Your task to perform on an android device: open app "WhatsApp Messenger" (install if not already installed), go to login, and select forgot password Image 0: 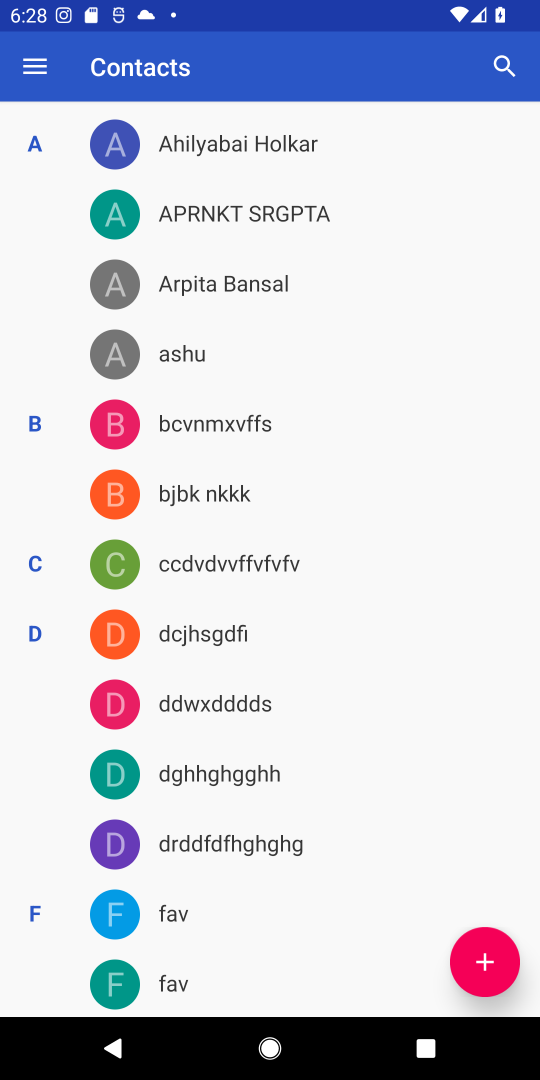
Step 0: press home button
Your task to perform on an android device: open app "WhatsApp Messenger" (install if not already installed), go to login, and select forgot password Image 1: 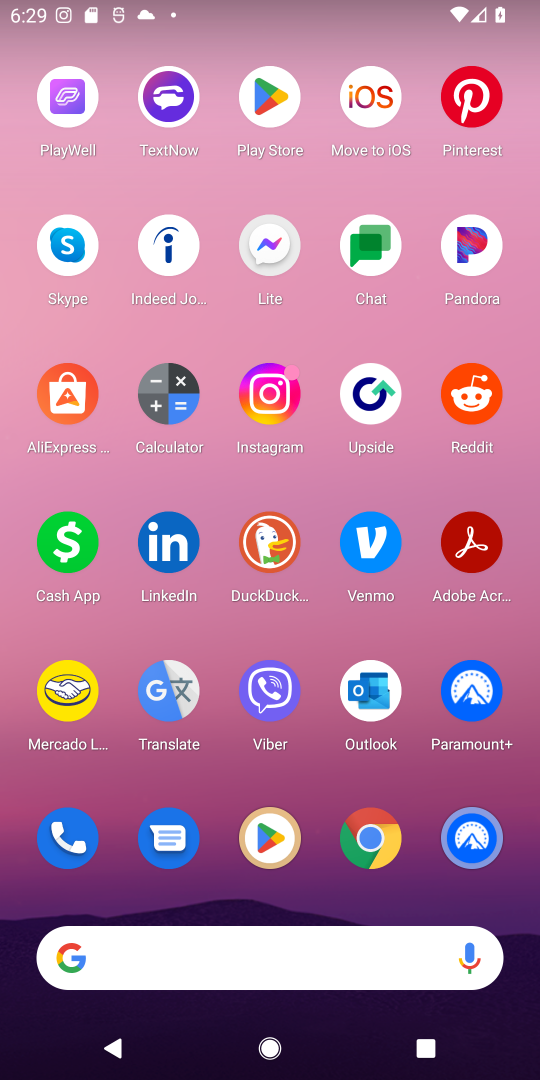
Step 1: click (273, 843)
Your task to perform on an android device: open app "WhatsApp Messenger" (install if not already installed), go to login, and select forgot password Image 2: 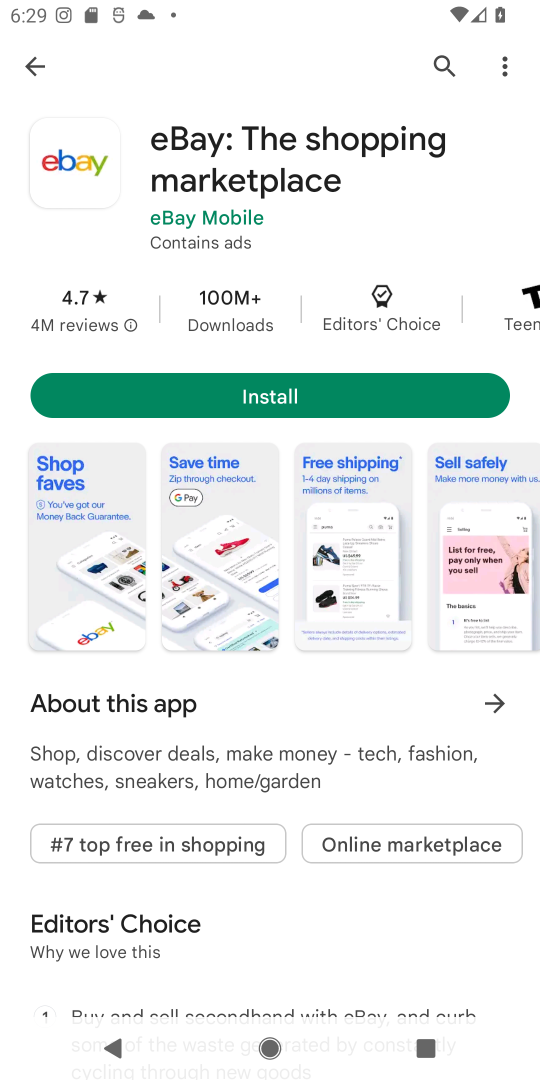
Step 2: click (439, 56)
Your task to perform on an android device: open app "WhatsApp Messenger" (install if not already installed), go to login, and select forgot password Image 3: 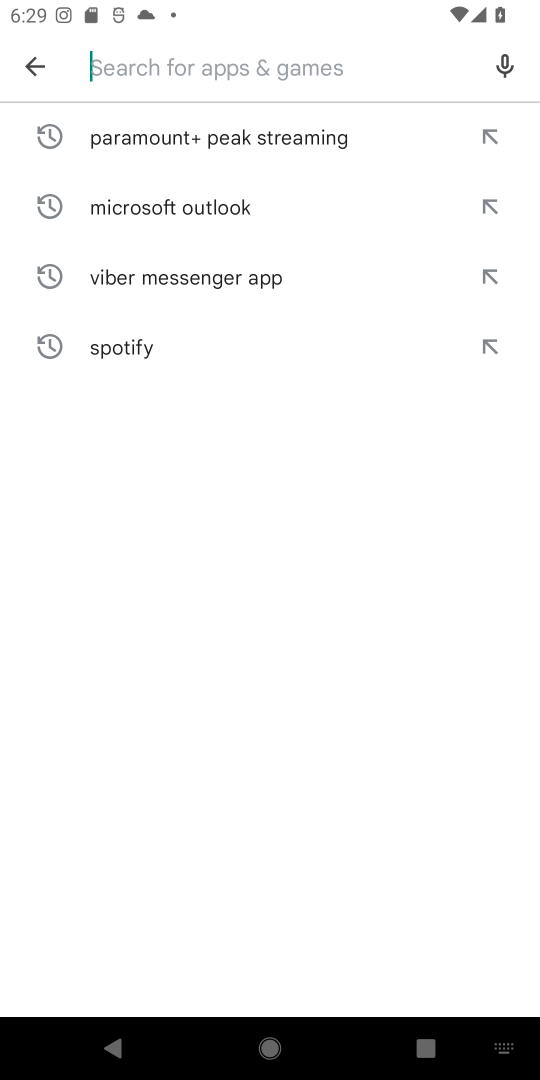
Step 3: type "WhatsApp Messenger"
Your task to perform on an android device: open app "WhatsApp Messenger" (install if not already installed), go to login, and select forgot password Image 4: 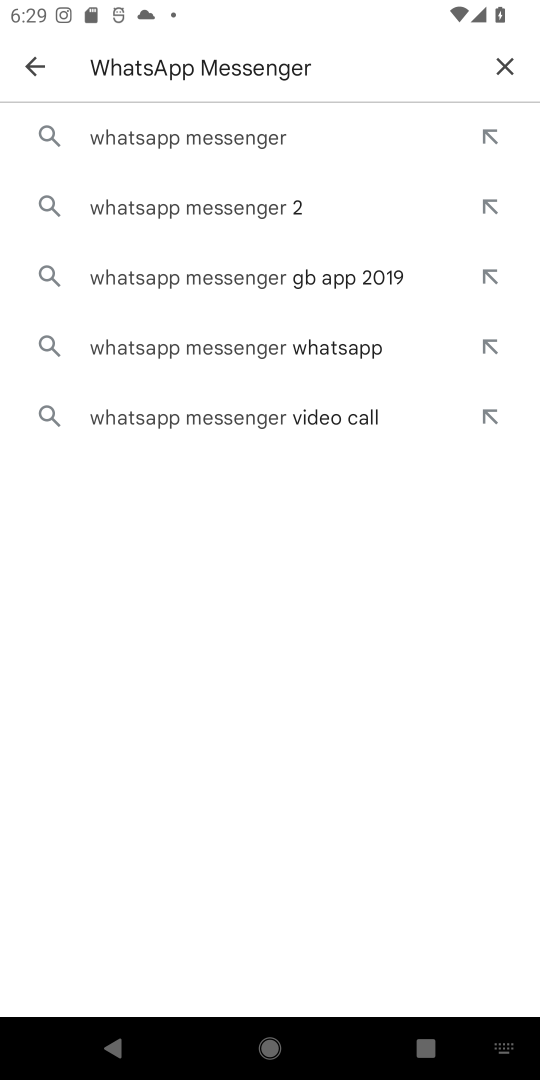
Step 4: click (215, 138)
Your task to perform on an android device: open app "WhatsApp Messenger" (install if not already installed), go to login, and select forgot password Image 5: 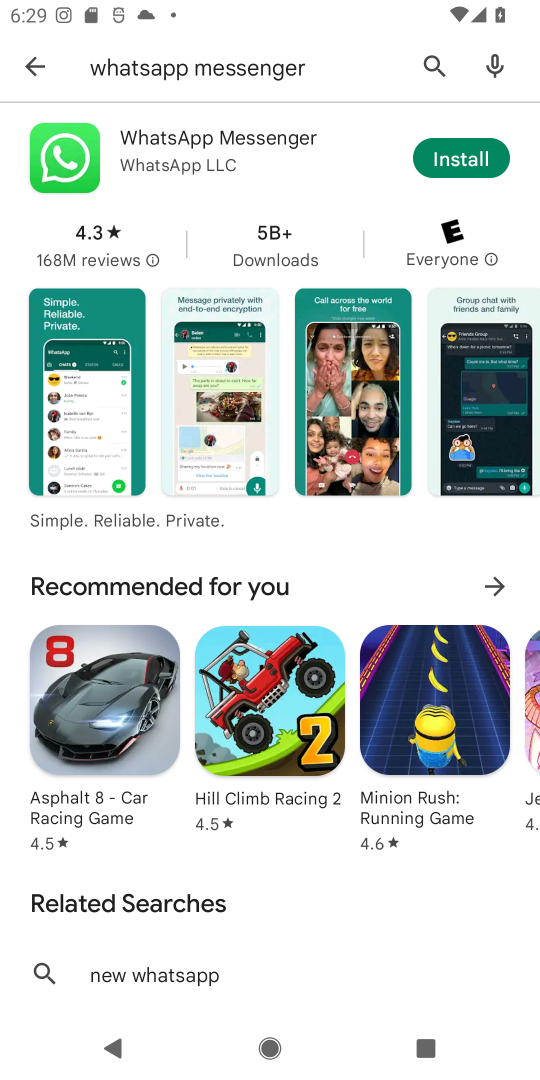
Step 5: click (447, 153)
Your task to perform on an android device: open app "WhatsApp Messenger" (install if not already installed), go to login, and select forgot password Image 6: 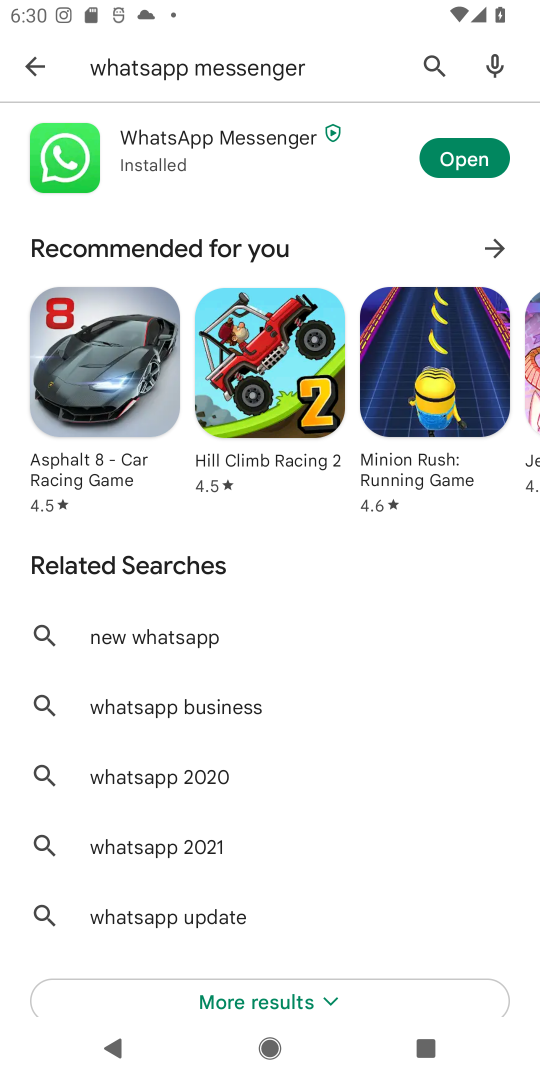
Step 6: click (446, 161)
Your task to perform on an android device: open app "WhatsApp Messenger" (install if not already installed), go to login, and select forgot password Image 7: 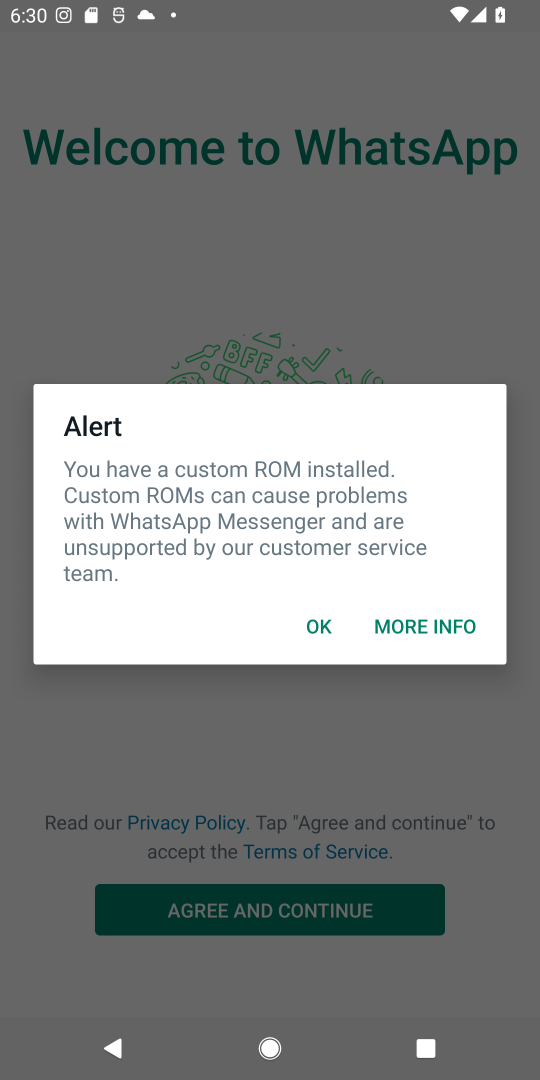
Step 7: click (316, 621)
Your task to perform on an android device: open app "WhatsApp Messenger" (install if not already installed), go to login, and select forgot password Image 8: 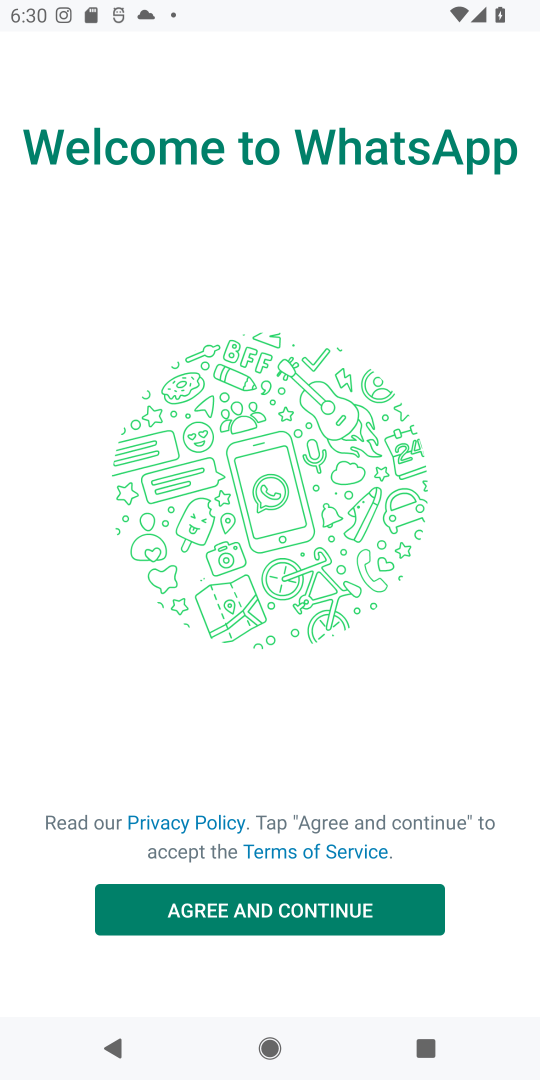
Step 8: task complete